Your task to perform on an android device: see tabs open on other devices in the chrome app Image 0: 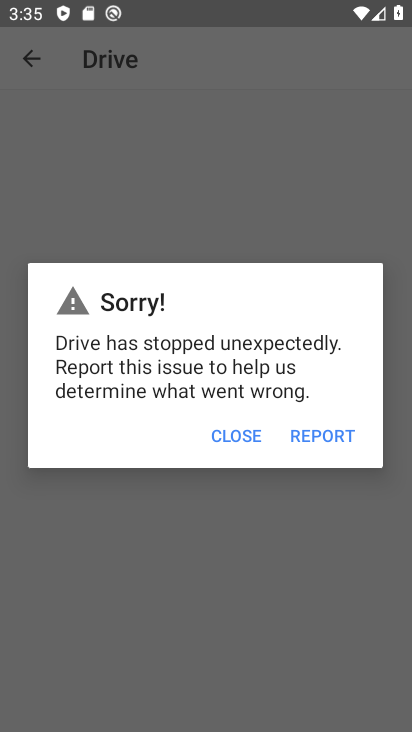
Step 0: click (231, 435)
Your task to perform on an android device: see tabs open on other devices in the chrome app Image 1: 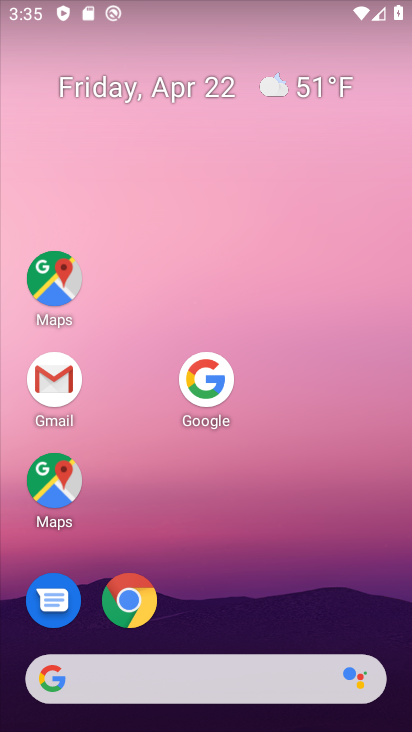
Step 1: drag from (287, 346) to (190, 26)
Your task to perform on an android device: see tabs open on other devices in the chrome app Image 2: 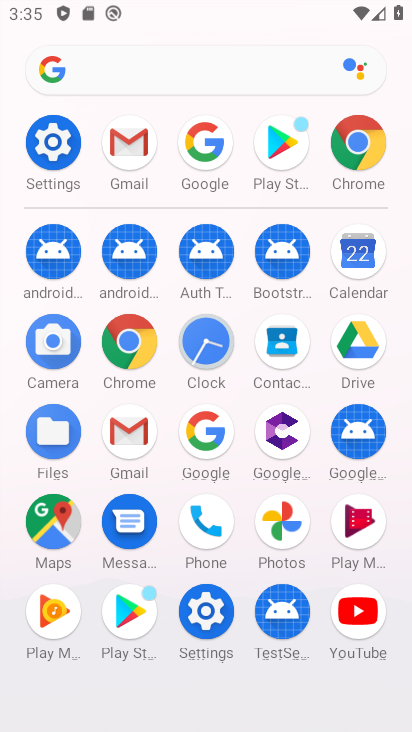
Step 2: click (351, 133)
Your task to perform on an android device: see tabs open on other devices in the chrome app Image 3: 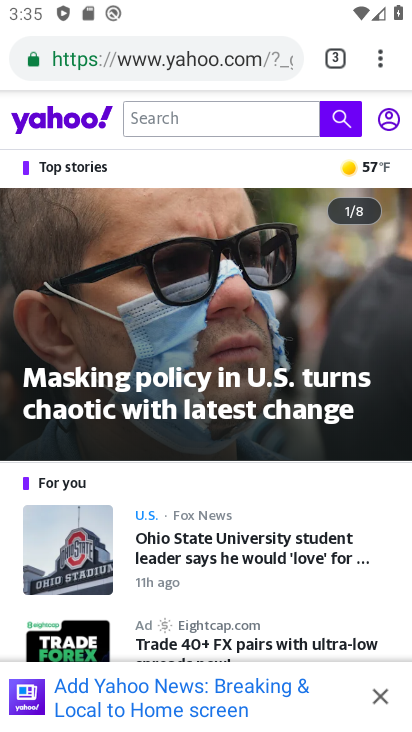
Step 3: drag from (378, 55) to (155, 277)
Your task to perform on an android device: see tabs open on other devices in the chrome app Image 4: 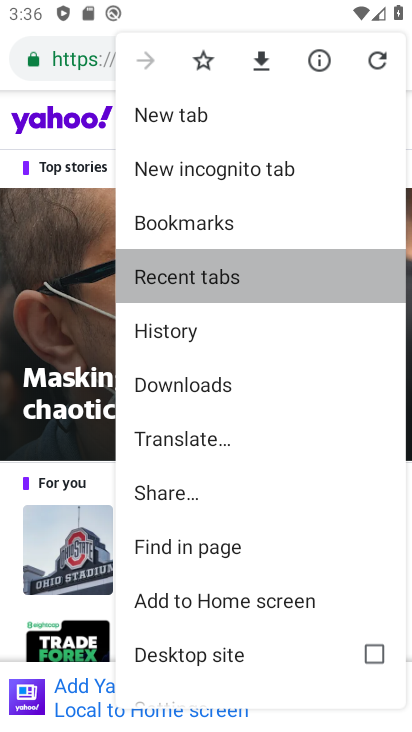
Step 4: click (155, 277)
Your task to perform on an android device: see tabs open on other devices in the chrome app Image 5: 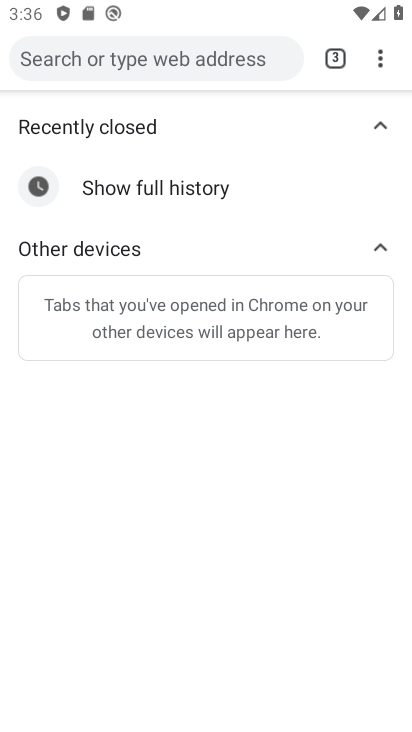
Step 5: task complete